Your task to perform on an android device: toggle sleep mode Image 0: 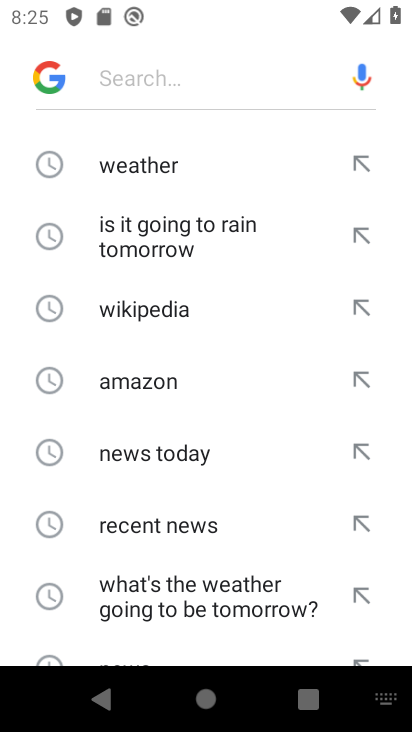
Step 0: press home button
Your task to perform on an android device: toggle sleep mode Image 1: 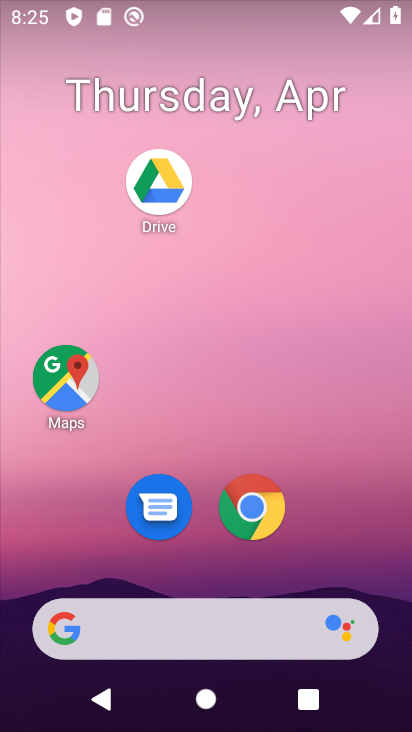
Step 1: drag from (340, 536) to (353, 103)
Your task to perform on an android device: toggle sleep mode Image 2: 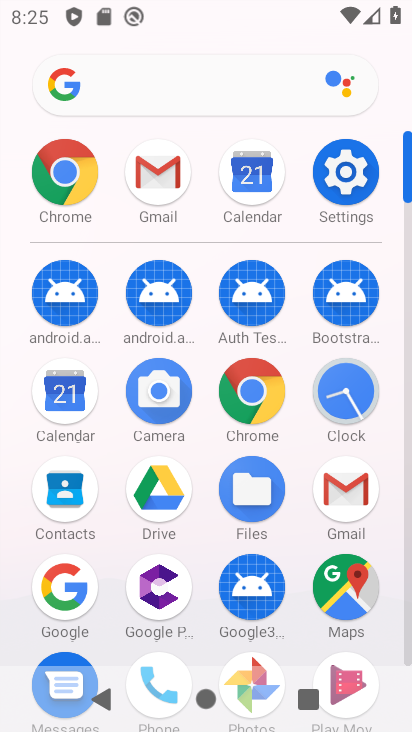
Step 2: click (348, 177)
Your task to perform on an android device: toggle sleep mode Image 3: 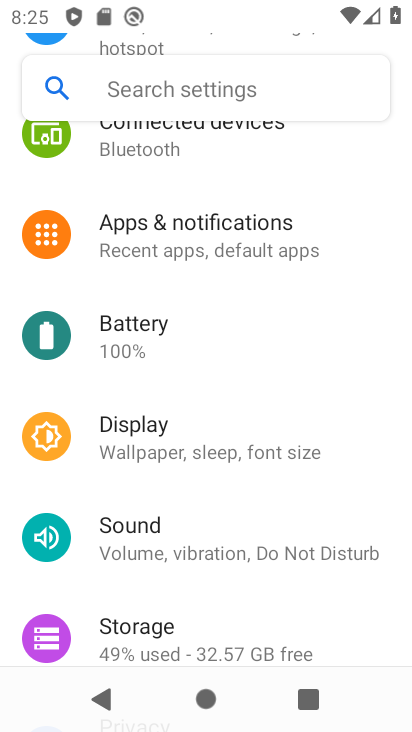
Step 3: drag from (372, 332) to (381, 428)
Your task to perform on an android device: toggle sleep mode Image 4: 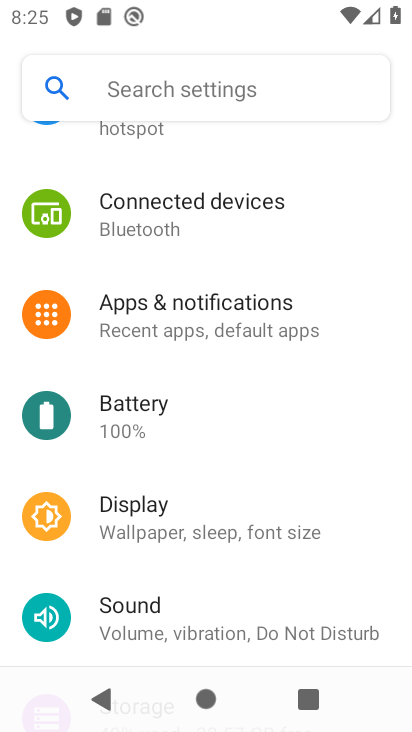
Step 4: drag from (365, 269) to (354, 460)
Your task to perform on an android device: toggle sleep mode Image 5: 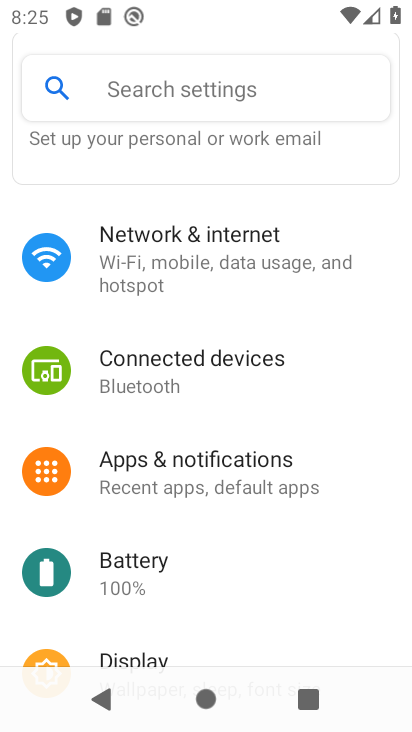
Step 5: drag from (366, 594) to (366, 433)
Your task to perform on an android device: toggle sleep mode Image 6: 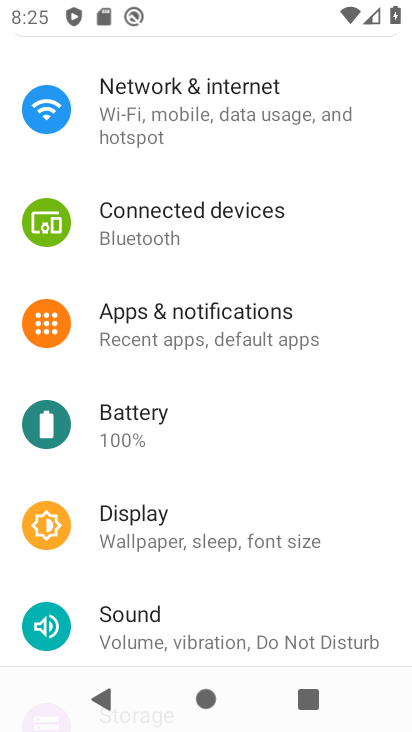
Step 6: drag from (356, 579) to (353, 419)
Your task to perform on an android device: toggle sleep mode Image 7: 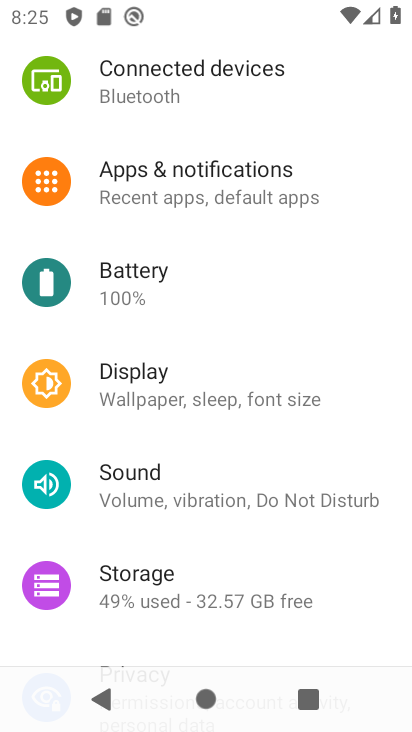
Step 7: drag from (358, 595) to (358, 415)
Your task to perform on an android device: toggle sleep mode Image 8: 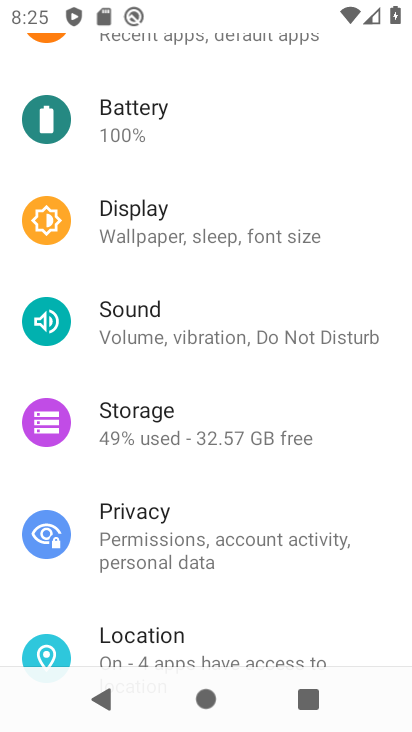
Step 8: drag from (359, 632) to (373, 434)
Your task to perform on an android device: toggle sleep mode Image 9: 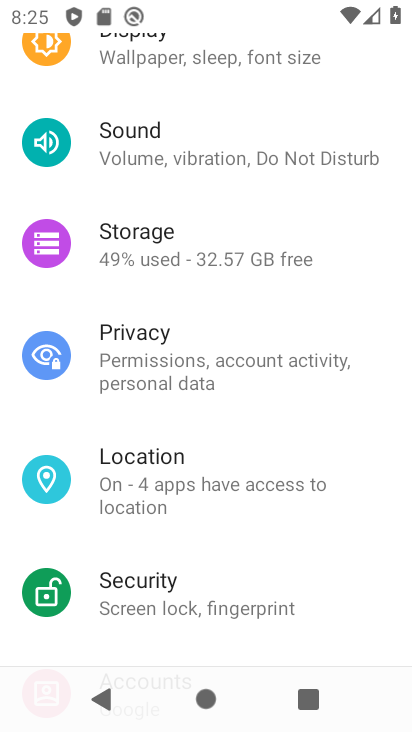
Step 9: drag from (375, 271) to (377, 403)
Your task to perform on an android device: toggle sleep mode Image 10: 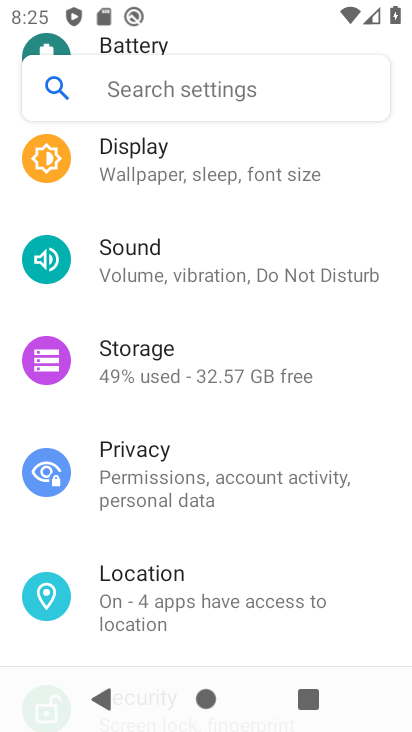
Step 10: drag from (378, 219) to (382, 359)
Your task to perform on an android device: toggle sleep mode Image 11: 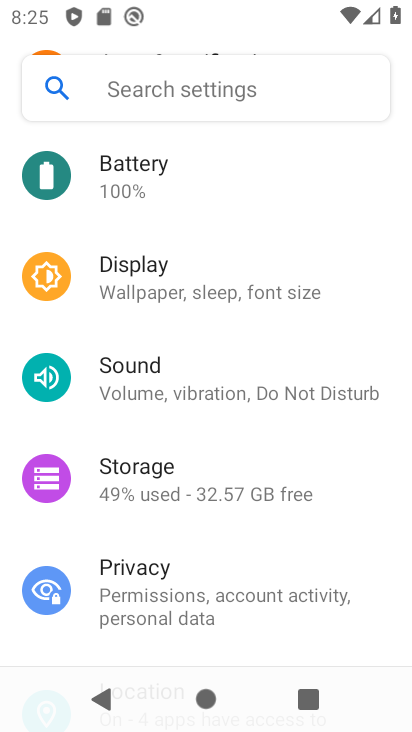
Step 11: click (262, 292)
Your task to perform on an android device: toggle sleep mode Image 12: 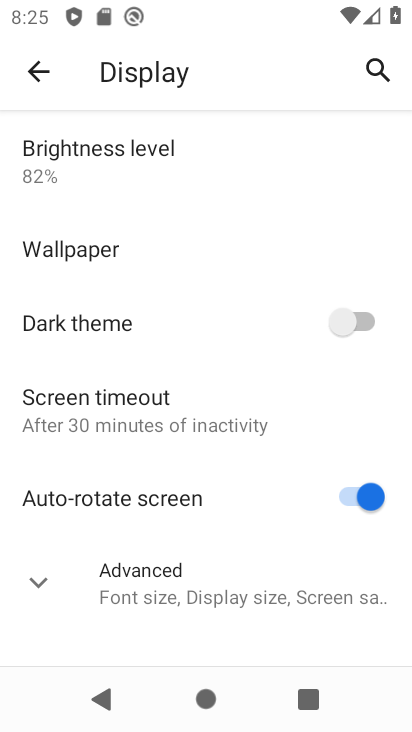
Step 12: click (169, 576)
Your task to perform on an android device: toggle sleep mode Image 13: 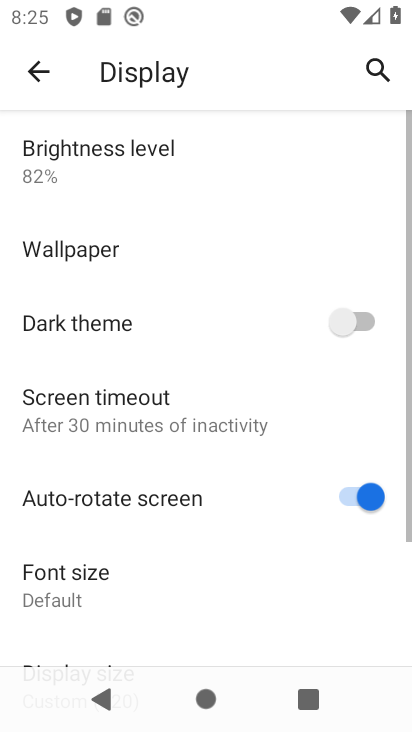
Step 13: task complete